Your task to perform on an android device: open a bookmark in the chrome app Image 0: 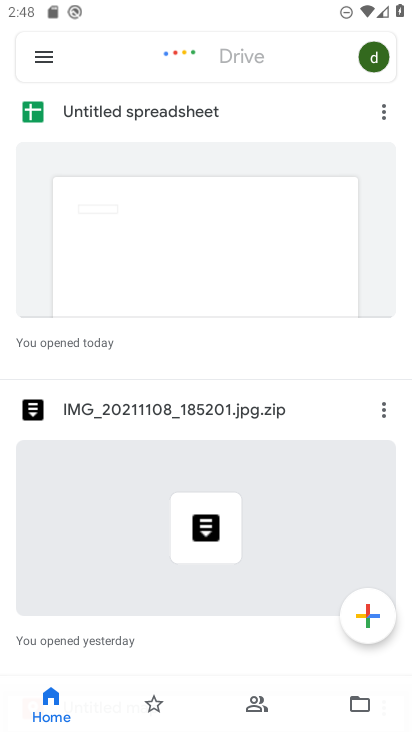
Step 0: press home button
Your task to perform on an android device: open a bookmark in the chrome app Image 1: 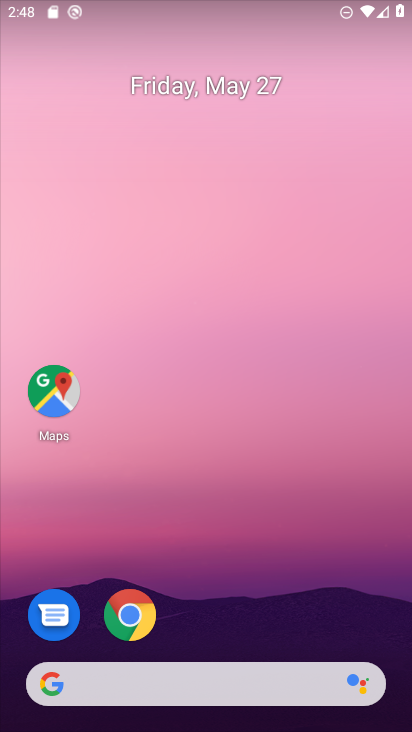
Step 1: click (130, 617)
Your task to perform on an android device: open a bookmark in the chrome app Image 2: 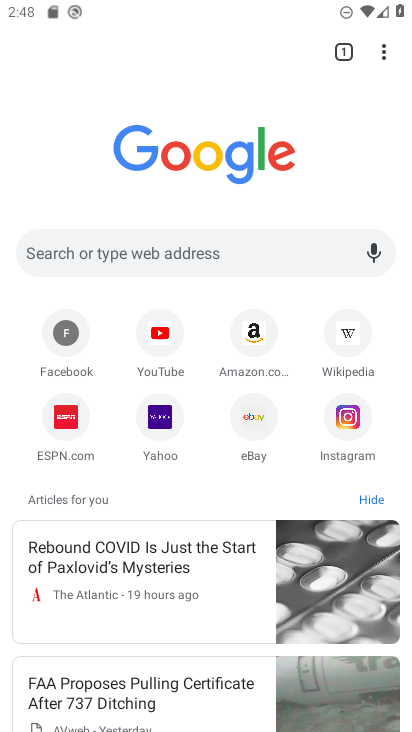
Step 2: click (380, 51)
Your task to perform on an android device: open a bookmark in the chrome app Image 3: 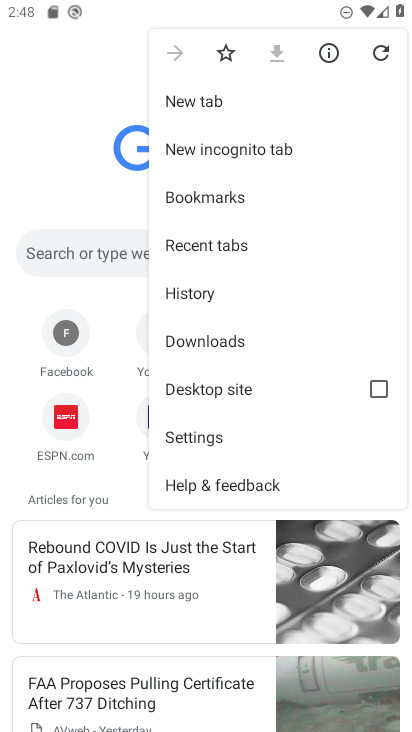
Step 3: click (231, 186)
Your task to perform on an android device: open a bookmark in the chrome app Image 4: 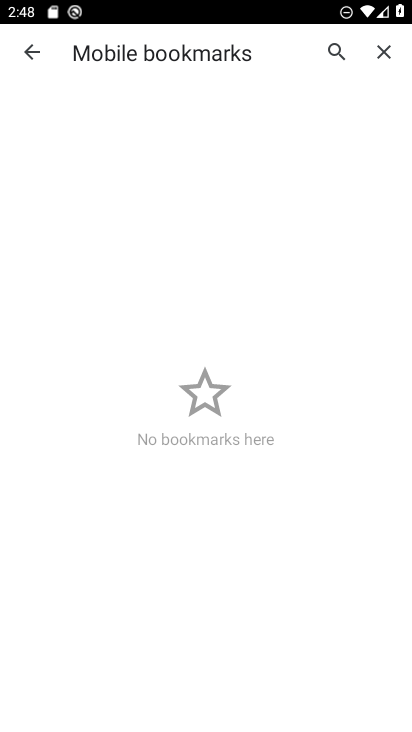
Step 4: task complete